Your task to perform on an android device: What's the weather? Image 0: 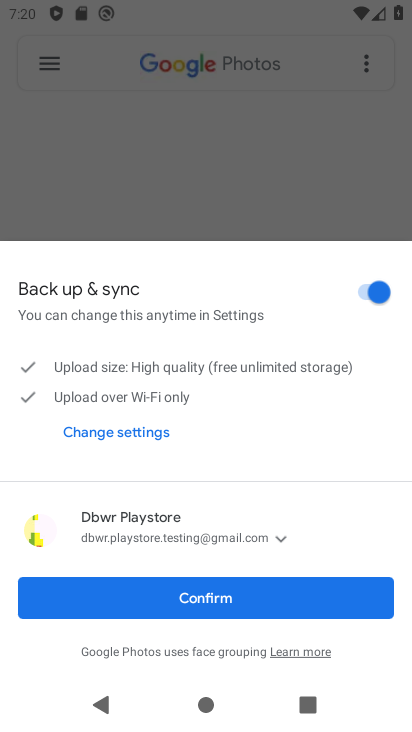
Step 0: press home button
Your task to perform on an android device: What's the weather? Image 1: 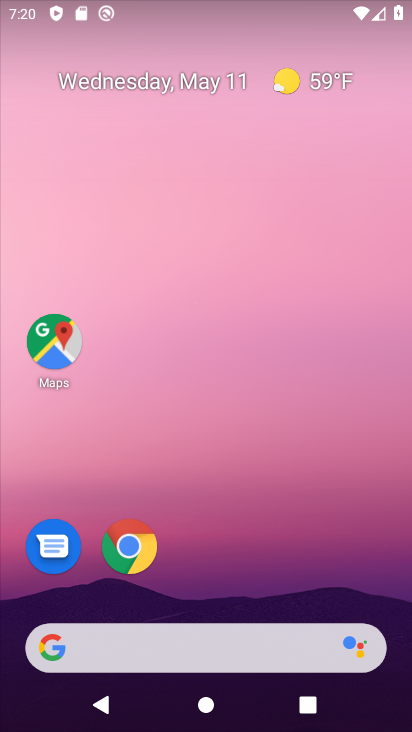
Step 1: click (328, 80)
Your task to perform on an android device: What's the weather? Image 2: 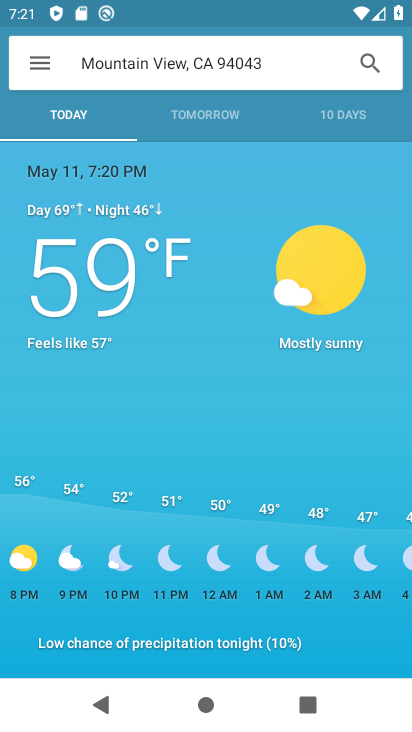
Step 2: task complete